Your task to perform on an android device: turn on notifications settings in the gmail app Image 0: 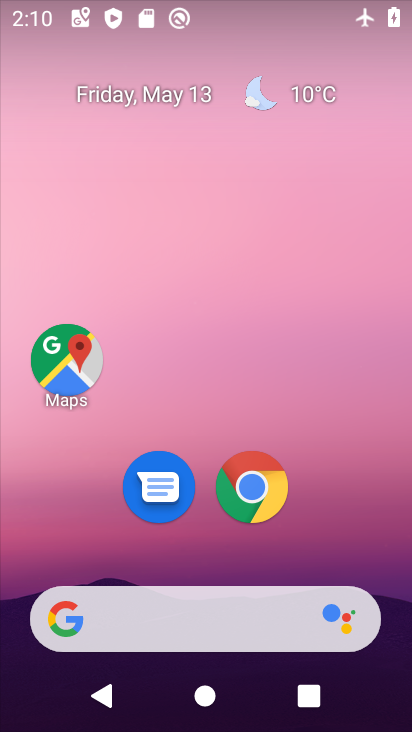
Step 0: drag from (208, 557) to (230, 123)
Your task to perform on an android device: turn on notifications settings in the gmail app Image 1: 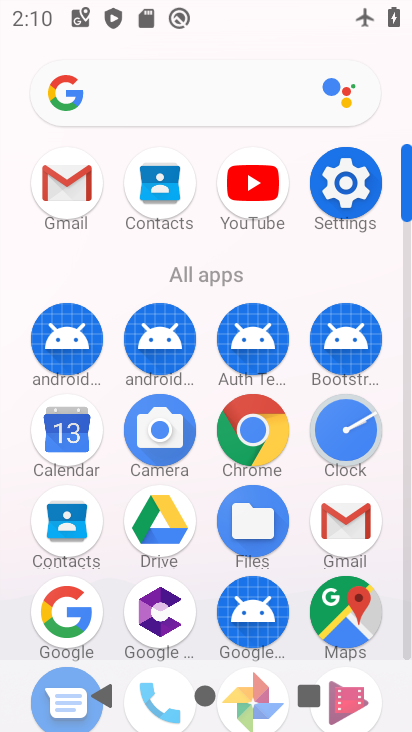
Step 1: click (68, 189)
Your task to perform on an android device: turn on notifications settings in the gmail app Image 2: 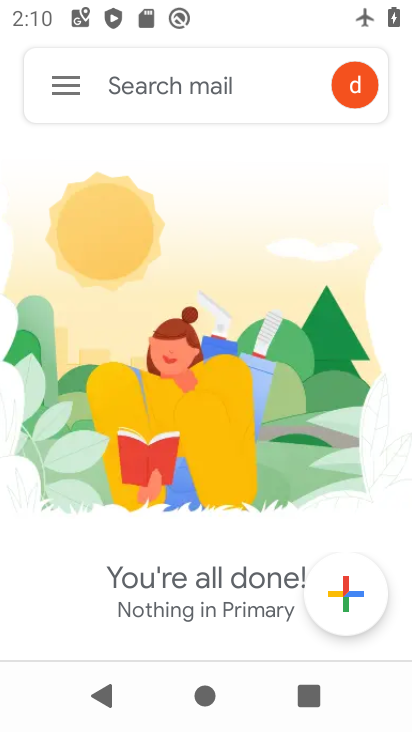
Step 2: click (54, 85)
Your task to perform on an android device: turn on notifications settings in the gmail app Image 3: 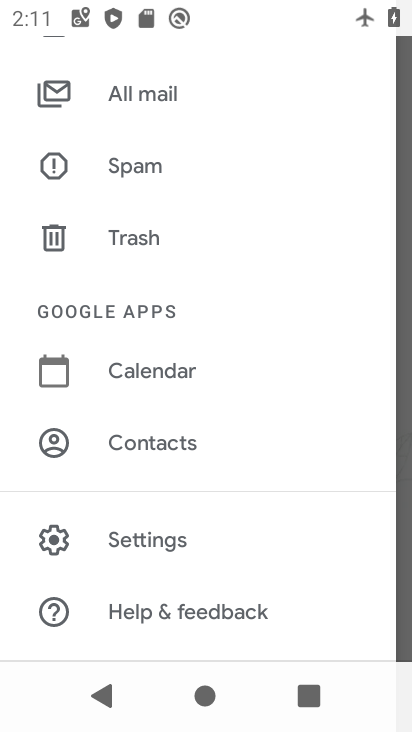
Step 3: click (134, 549)
Your task to perform on an android device: turn on notifications settings in the gmail app Image 4: 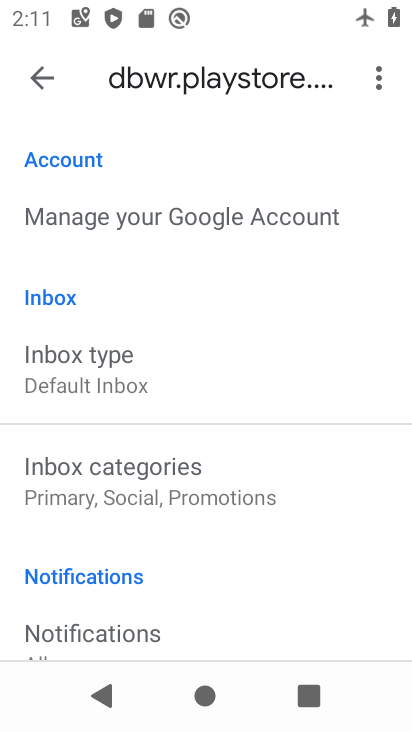
Step 4: drag from (126, 410) to (147, 332)
Your task to perform on an android device: turn on notifications settings in the gmail app Image 5: 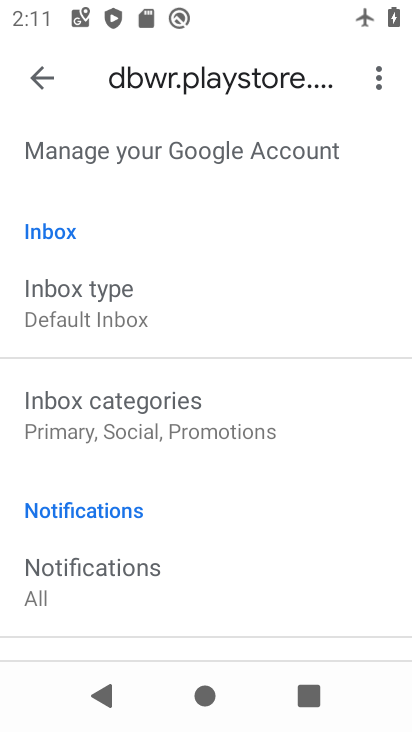
Step 5: click (93, 565)
Your task to perform on an android device: turn on notifications settings in the gmail app Image 6: 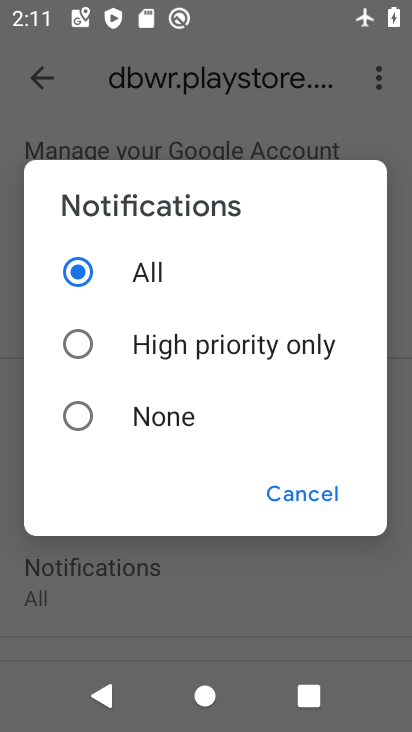
Step 6: click (138, 407)
Your task to perform on an android device: turn on notifications settings in the gmail app Image 7: 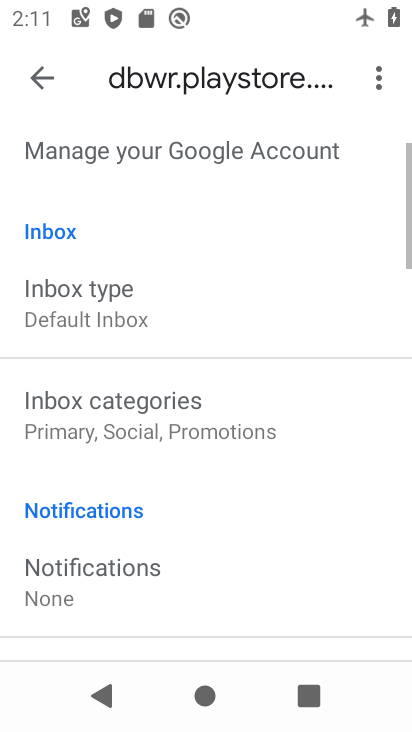
Step 7: task complete